Your task to perform on an android device: refresh tabs in the chrome app Image 0: 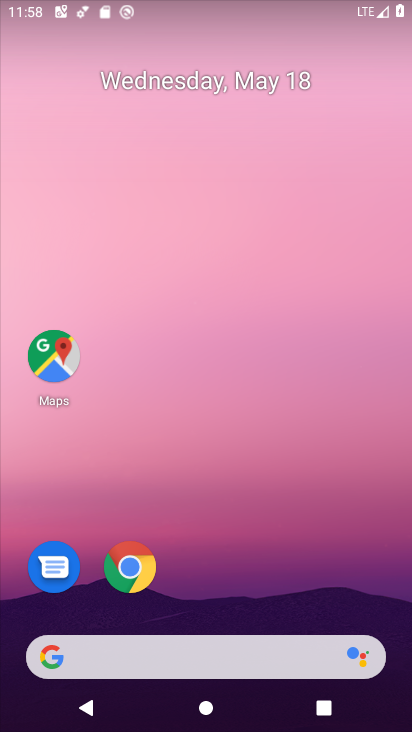
Step 0: drag from (333, 457) to (248, 49)
Your task to perform on an android device: refresh tabs in the chrome app Image 1: 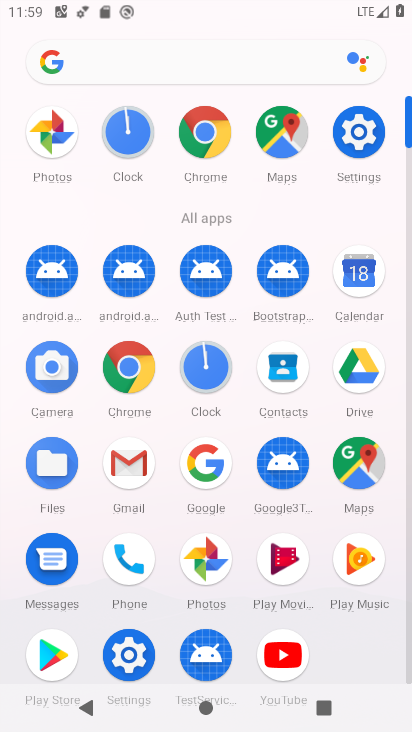
Step 1: click (205, 142)
Your task to perform on an android device: refresh tabs in the chrome app Image 2: 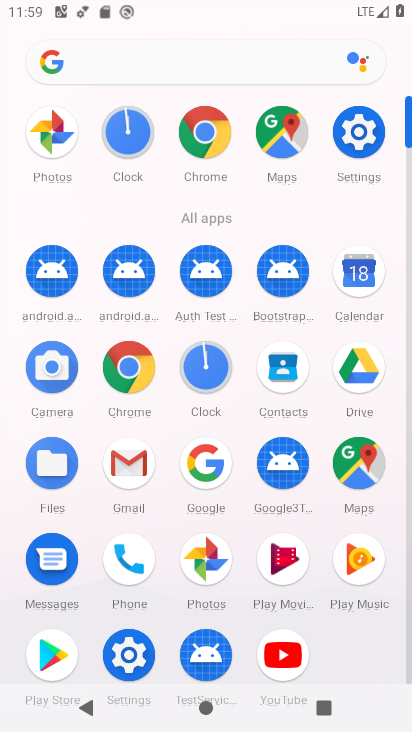
Step 2: click (217, 147)
Your task to perform on an android device: refresh tabs in the chrome app Image 3: 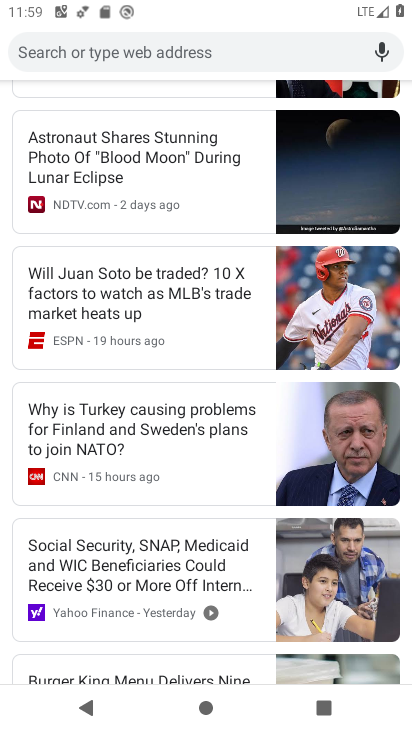
Step 3: task complete